Your task to perform on an android device: toggle translation in the chrome app Image 0: 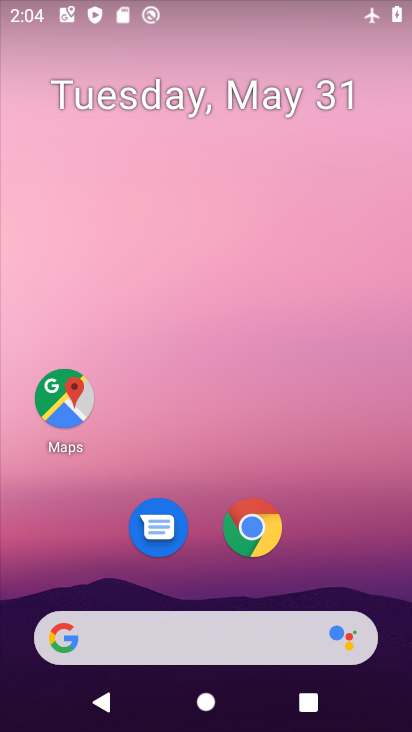
Step 0: drag from (365, 538) to (312, 145)
Your task to perform on an android device: toggle translation in the chrome app Image 1: 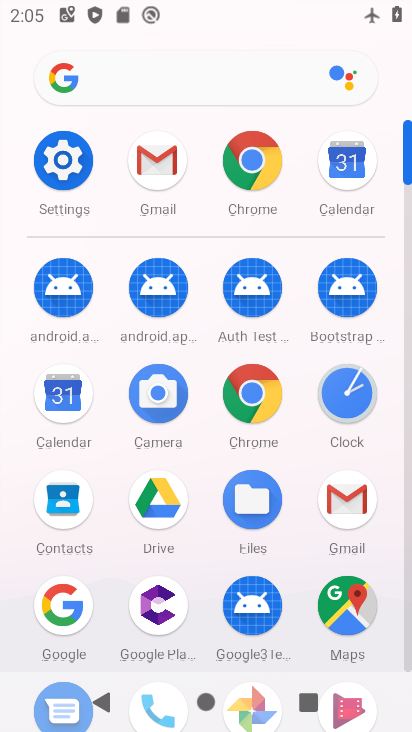
Step 1: click (254, 170)
Your task to perform on an android device: toggle translation in the chrome app Image 2: 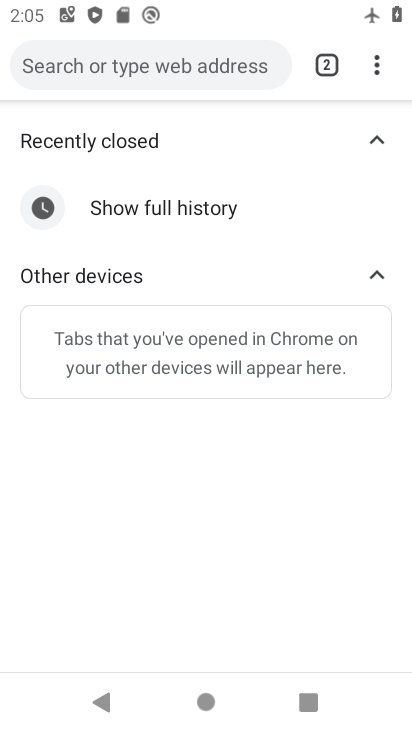
Step 2: drag from (378, 58) to (142, 528)
Your task to perform on an android device: toggle translation in the chrome app Image 3: 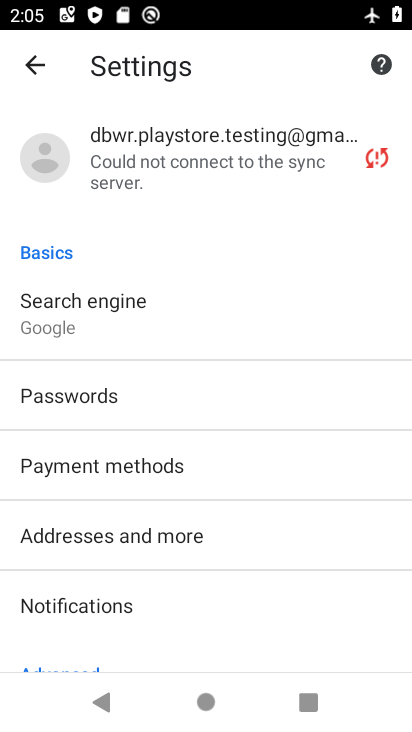
Step 3: drag from (171, 541) to (211, 237)
Your task to perform on an android device: toggle translation in the chrome app Image 4: 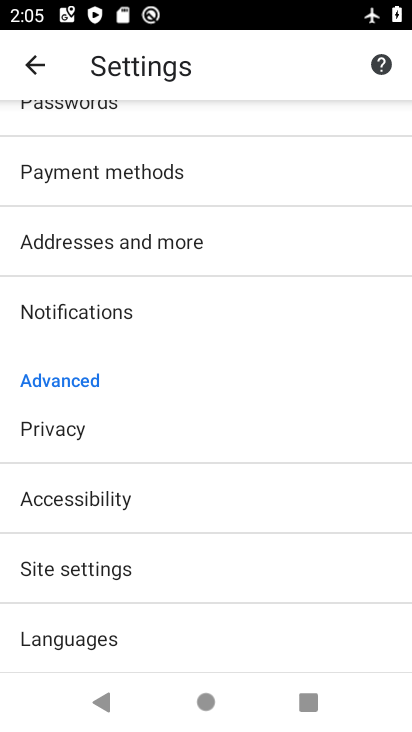
Step 4: drag from (218, 518) to (213, 215)
Your task to perform on an android device: toggle translation in the chrome app Image 5: 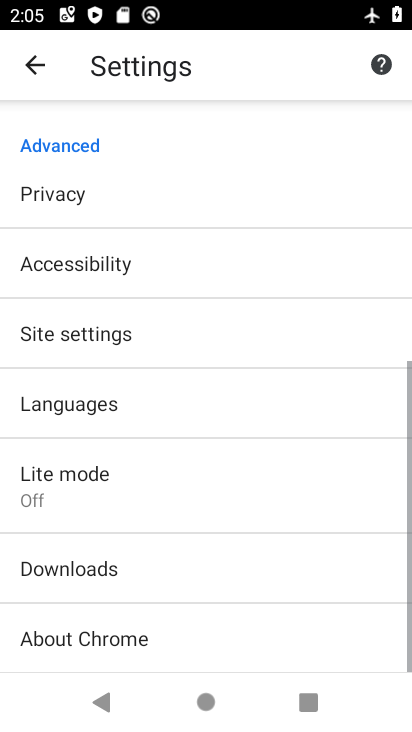
Step 5: click (108, 409)
Your task to perform on an android device: toggle translation in the chrome app Image 6: 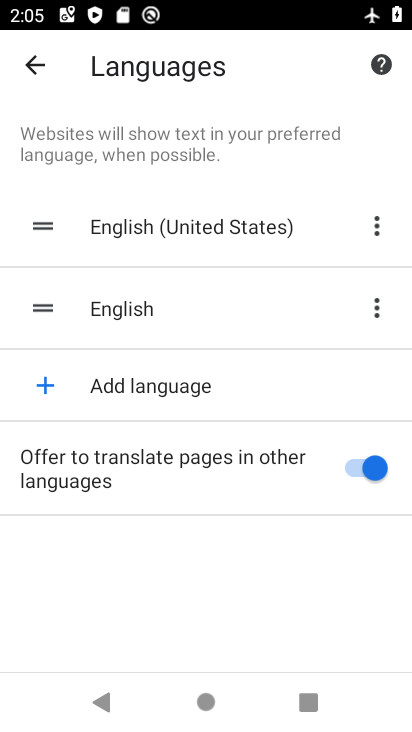
Step 6: click (366, 460)
Your task to perform on an android device: toggle translation in the chrome app Image 7: 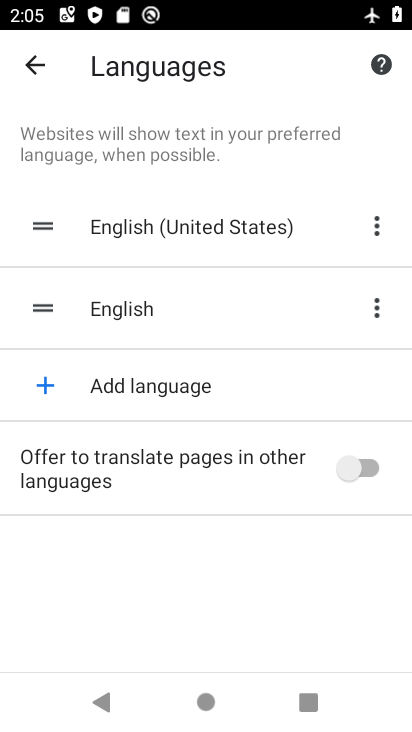
Step 7: task complete